Your task to perform on an android device: Open calendar and show me the second week of next month Image 0: 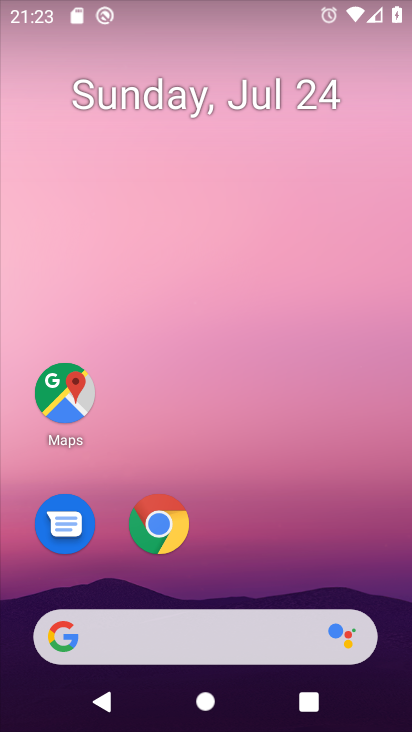
Step 0: drag from (302, 540) to (310, 0)
Your task to perform on an android device: Open calendar and show me the second week of next month Image 1: 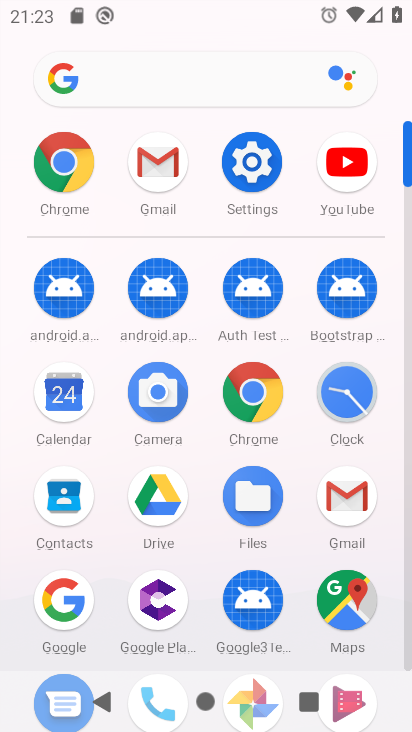
Step 1: click (66, 393)
Your task to perform on an android device: Open calendar and show me the second week of next month Image 2: 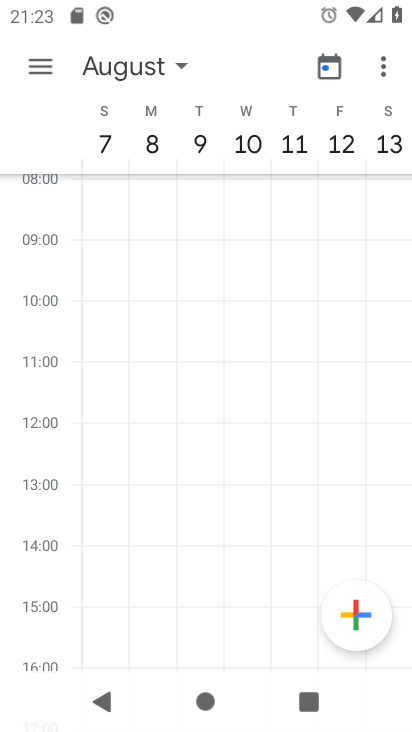
Step 2: task complete